Your task to perform on an android device: allow cookies in the chrome app Image 0: 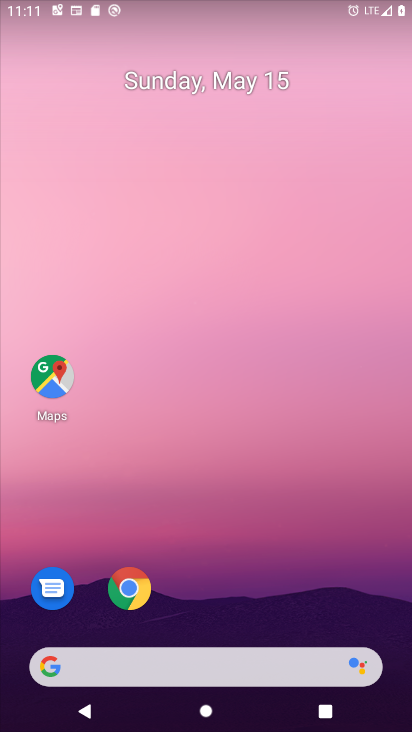
Step 0: click (140, 594)
Your task to perform on an android device: allow cookies in the chrome app Image 1: 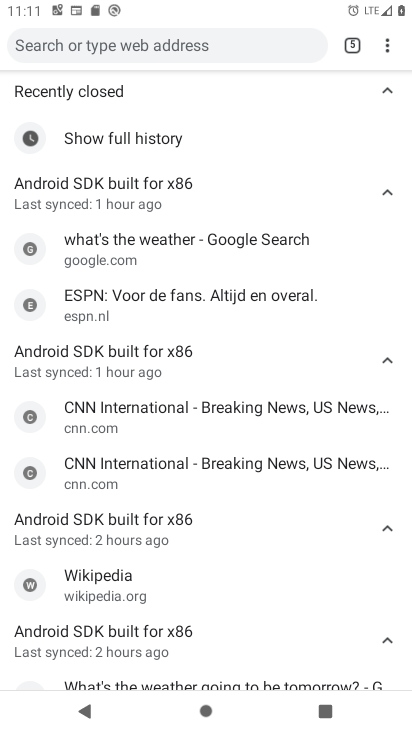
Step 1: click (385, 48)
Your task to perform on an android device: allow cookies in the chrome app Image 2: 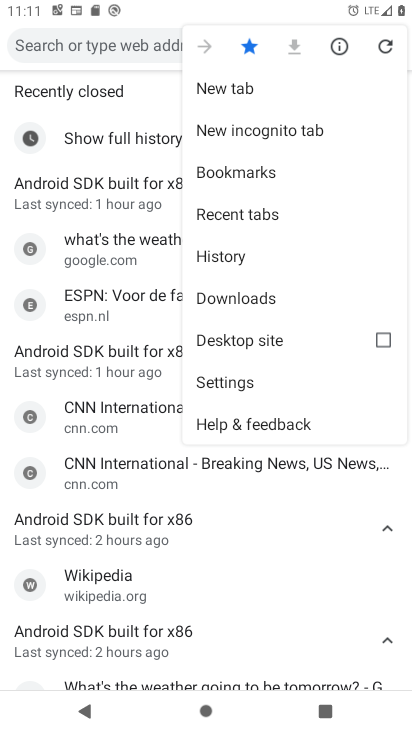
Step 2: click (229, 377)
Your task to perform on an android device: allow cookies in the chrome app Image 3: 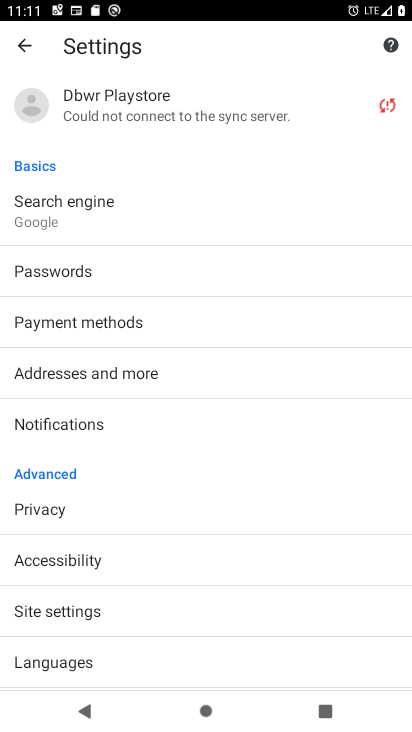
Step 3: click (90, 613)
Your task to perform on an android device: allow cookies in the chrome app Image 4: 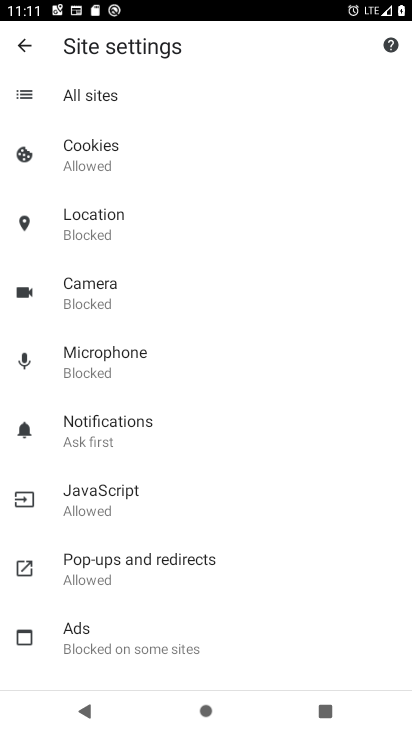
Step 4: click (98, 160)
Your task to perform on an android device: allow cookies in the chrome app Image 5: 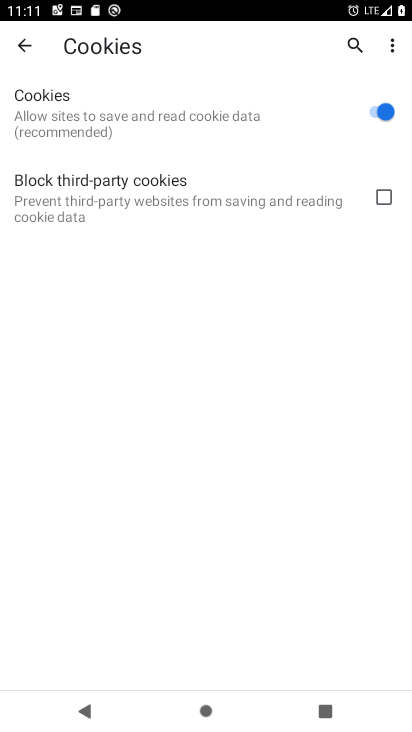
Step 5: task complete